Your task to perform on an android device: toggle notification dots Image 0: 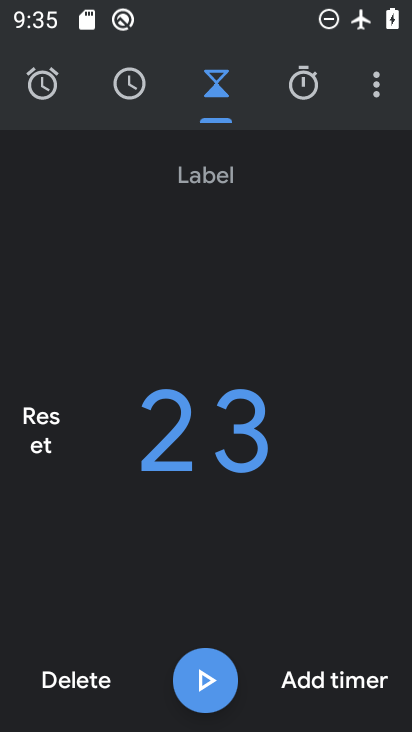
Step 0: press home button
Your task to perform on an android device: toggle notification dots Image 1: 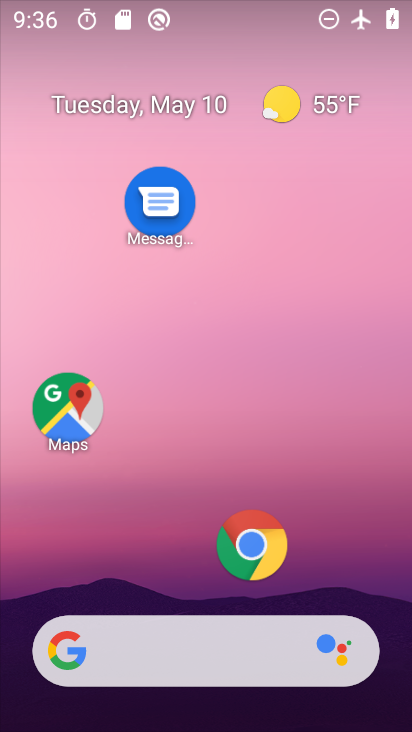
Step 1: drag from (201, 588) to (205, 166)
Your task to perform on an android device: toggle notification dots Image 2: 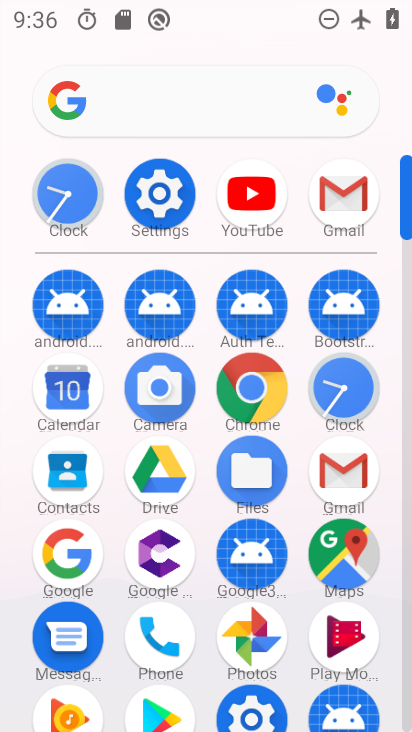
Step 2: click (168, 192)
Your task to perform on an android device: toggle notification dots Image 3: 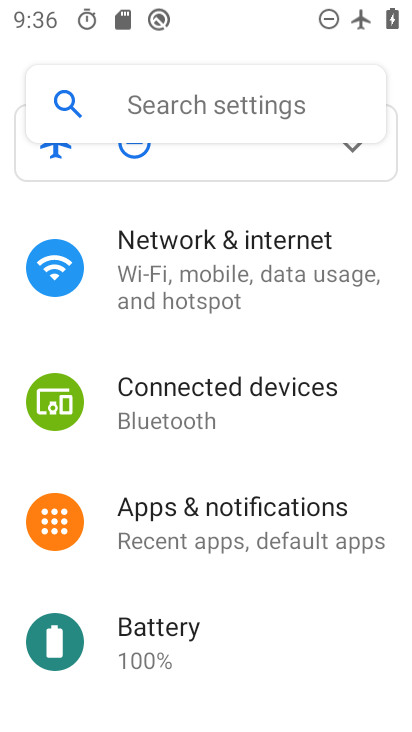
Step 3: drag from (239, 670) to (241, 413)
Your task to perform on an android device: toggle notification dots Image 4: 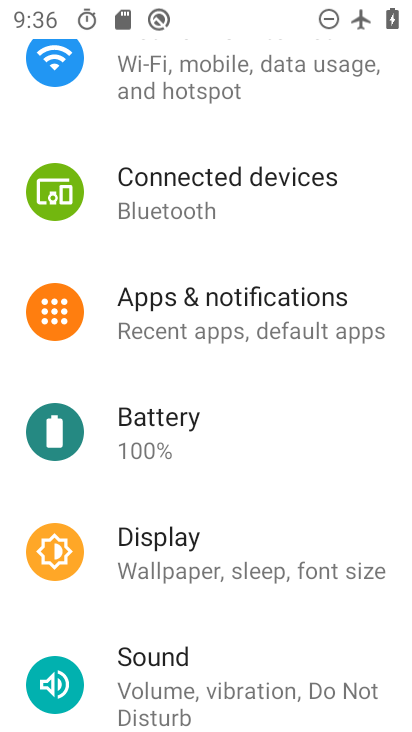
Step 4: drag from (328, 178) to (318, 461)
Your task to perform on an android device: toggle notification dots Image 5: 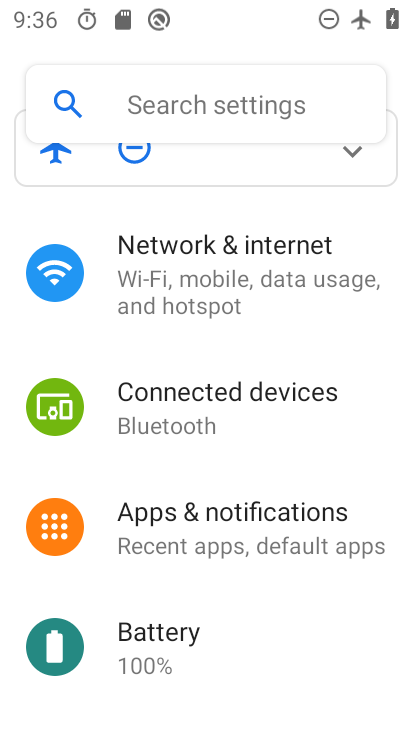
Step 5: drag from (311, 658) to (307, 286)
Your task to perform on an android device: toggle notification dots Image 6: 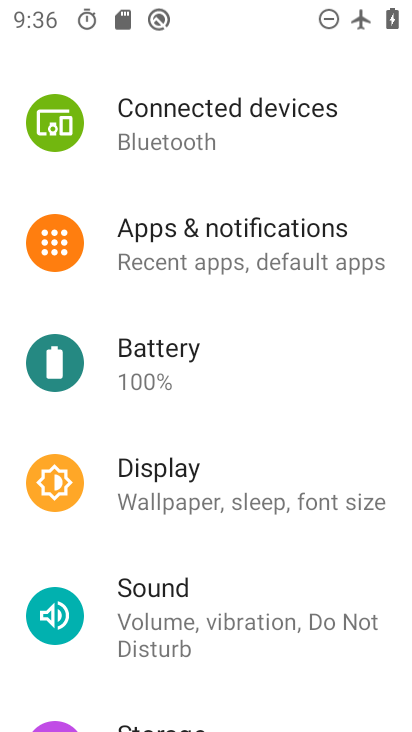
Step 6: drag from (294, 624) to (311, 311)
Your task to perform on an android device: toggle notification dots Image 7: 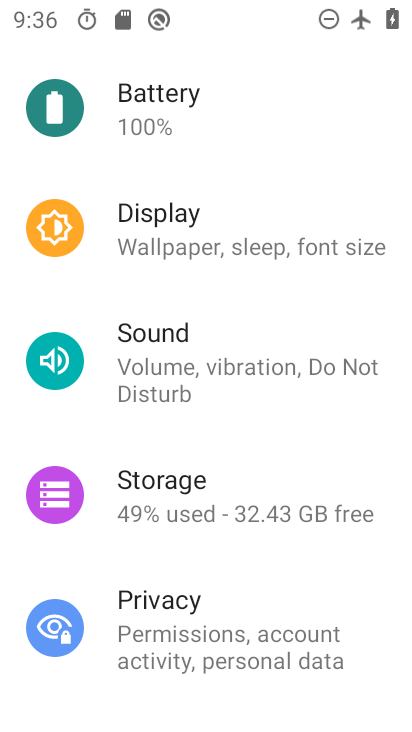
Step 7: drag from (278, 546) to (289, 296)
Your task to perform on an android device: toggle notification dots Image 8: 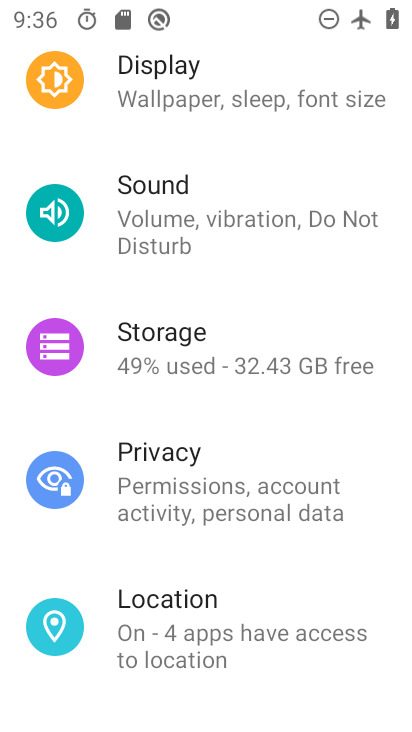
Step 8: drag from (249, 605) to (278, 661)
Your task to perform on an android device: toggle notification dots Image 9: 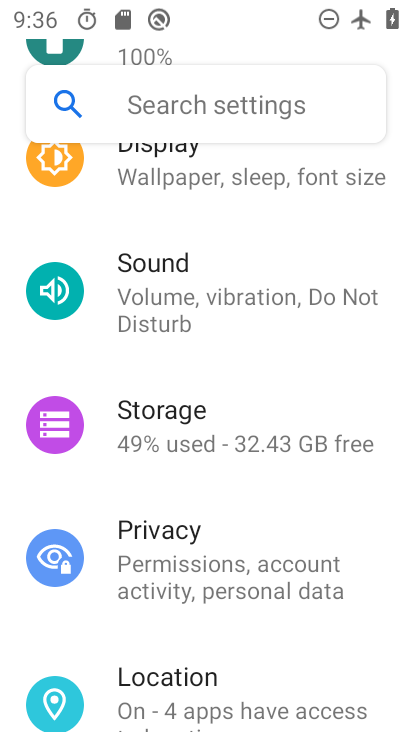
Step 9: drag from (266, 216) to (266, 582)
Your task to perform on an android device: toggle notification dots Image 10: 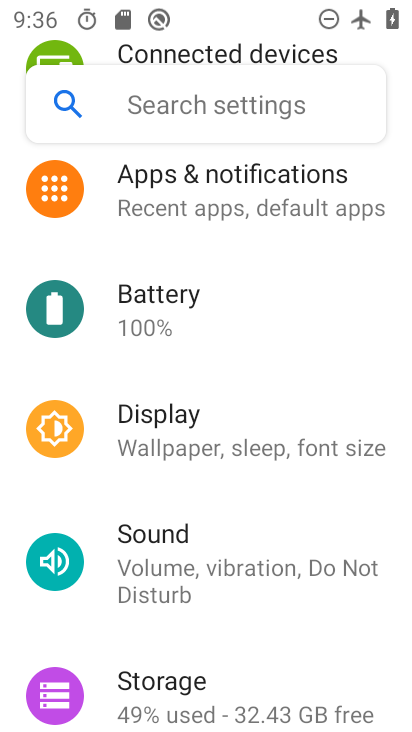
Step 10: click (243, 200)
Your task to perform on an android device: toggle notification dots Image 11: 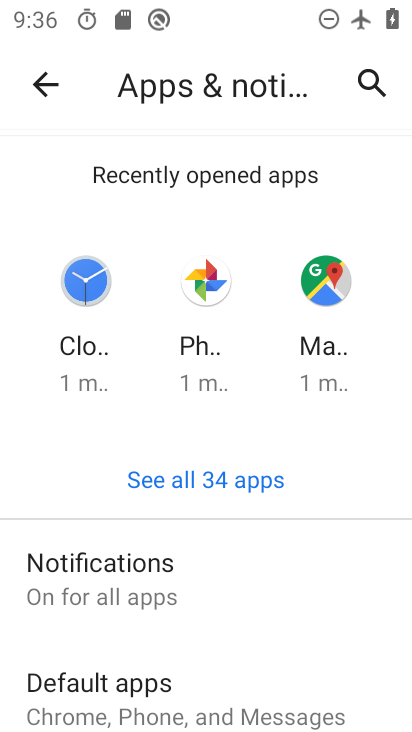
Step 11: click (225, 567)
Your task to perform on an android device: toggle notification dots Image 12: 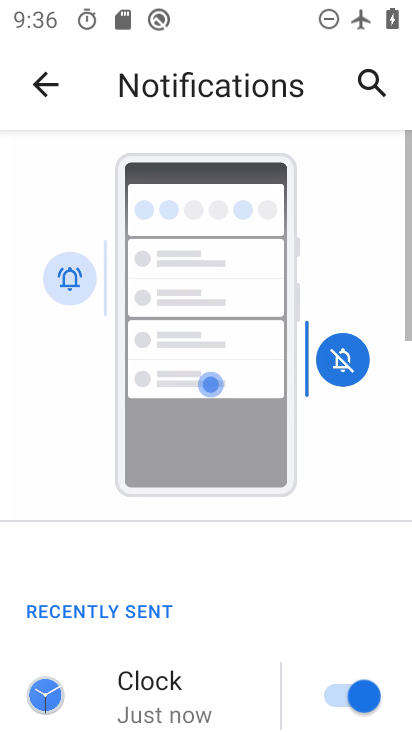
Step 12: drag from (250, 604) to (299, 164)
Your task to perform on an android device: toggle notification dots Image 13: 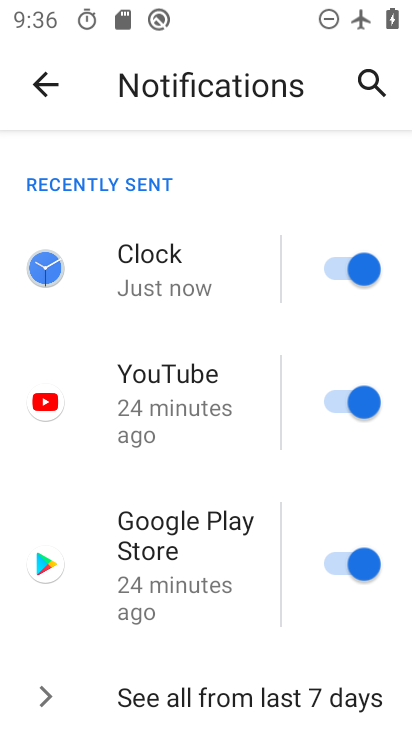
Step 13: drag from (233, 657) to (251, 287)
Your task to perform on an android device: toggle notification dots Image 14: 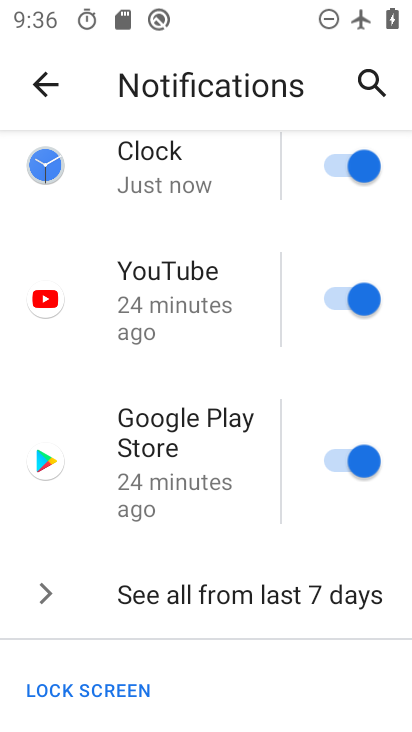
Step 14: drag from (256, 636) to (262, 320)
Your task to perform on an android device: toggle notification dots Image 15: 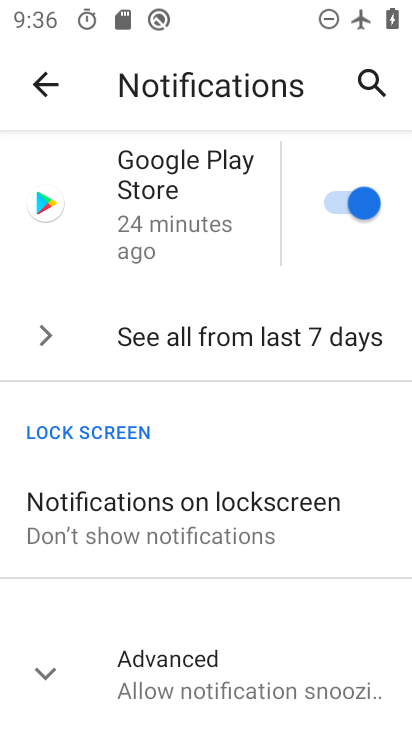
Step 15: click (179, 634)
Your task to perform on an android device: toggle notification dots Image 16: 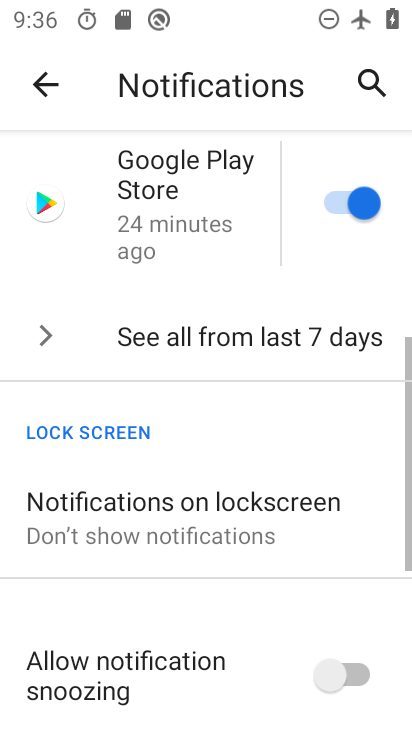
Step 16: drag from (221, 628) to (323, 271)
Your task to perform on an android device: toggle notification dots Image 17: 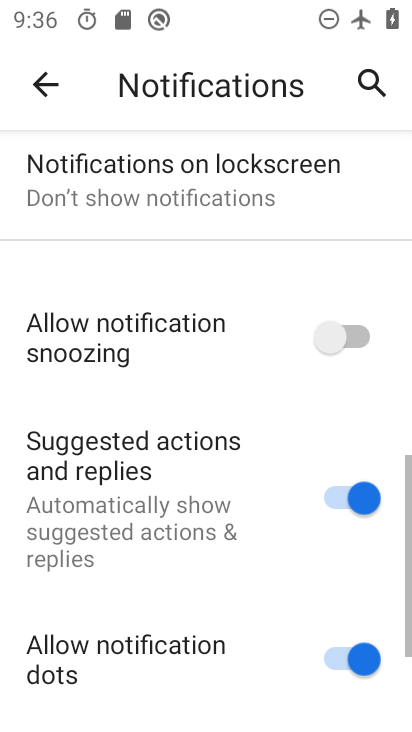
Step 17: drag from (260, 609) to (247, 339)
Your task to perform on an android device: toggle notification dots Image 18: 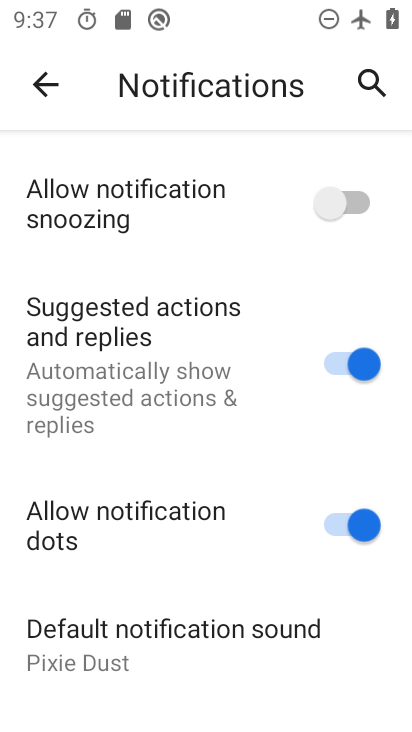
Step 18: click (340, 511)
Your task to perform on an android device: toggle notification dots Image 19: 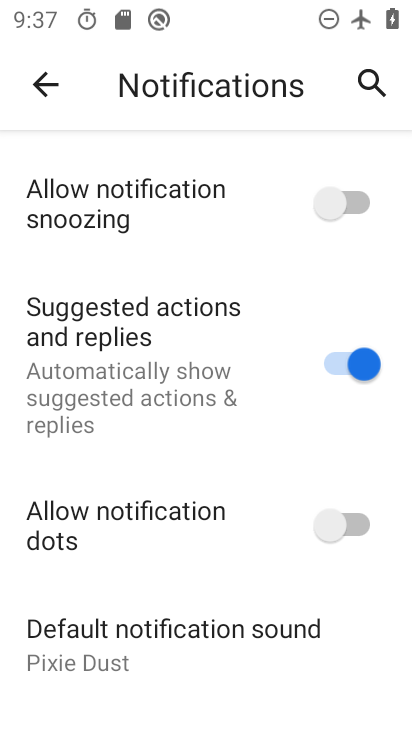
Step 19: task complete